Your task to perform on an android device: What's the weather going to be this weekend? Image 0: 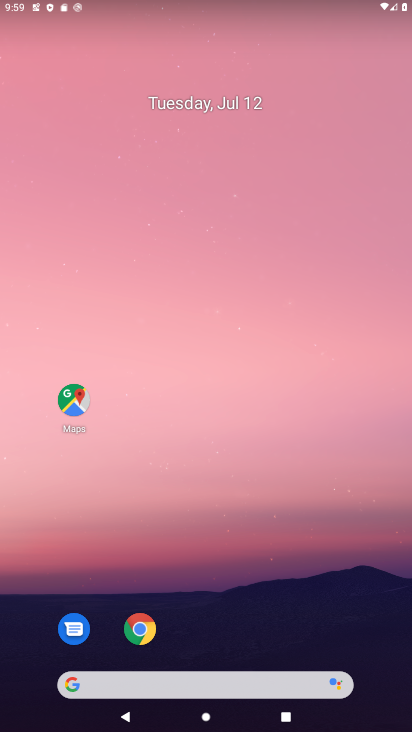
Step 0: drag from (279, 630) to (297, 18)
Your task to perform on an android device: What's the weather going to be this weekend? Image 1: 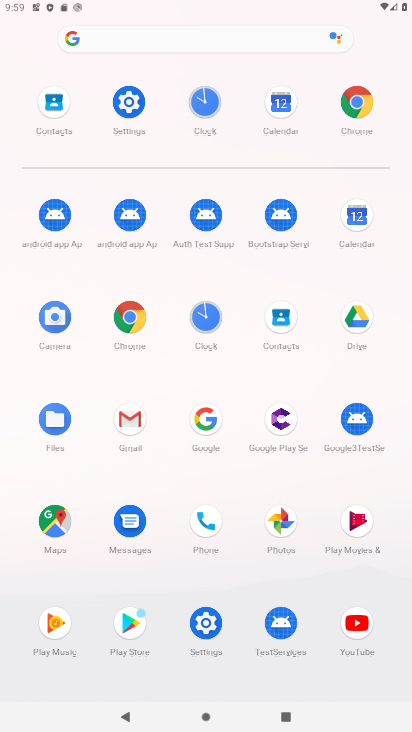
Step 1: click (139, 307)
Your task to perform on an android device: What's the weather going to be this weekend? Image 2: 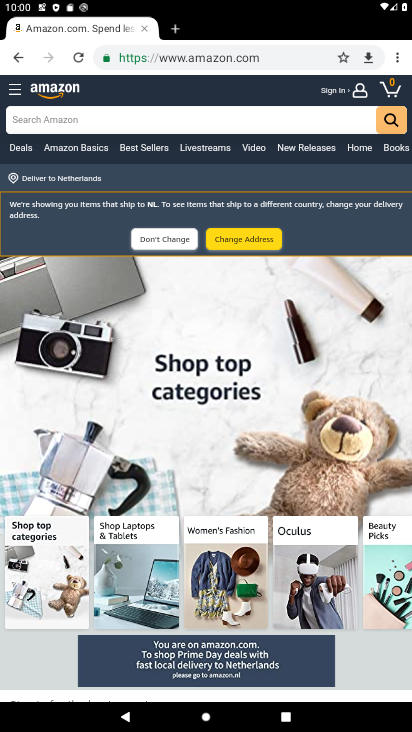
Step 2: click (305, 52)
Your task to perform on an android device: What's the weather going to be this weekend? Image 3: 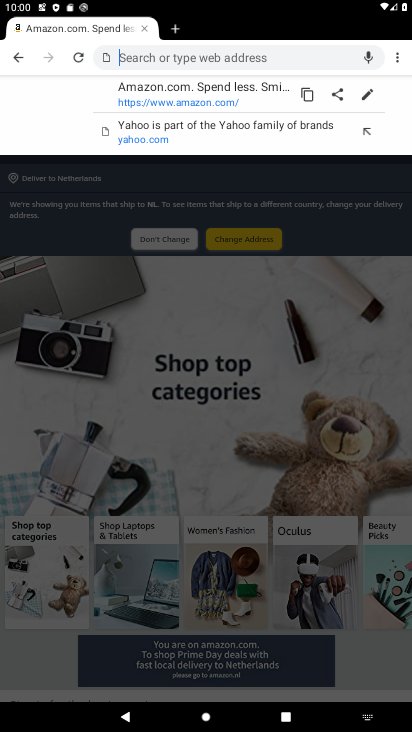
Step 3: type "weather going to be this weekend"
Your task to perform on an android device: What's the weather going to be this weekend? Image 4: 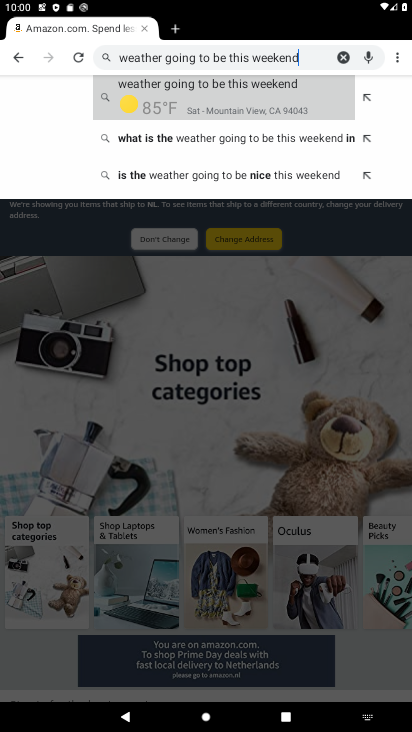
Step 4: click (326, 92)
Your task to perform on an android device: What's the weather going to be this weekend? Image 5: 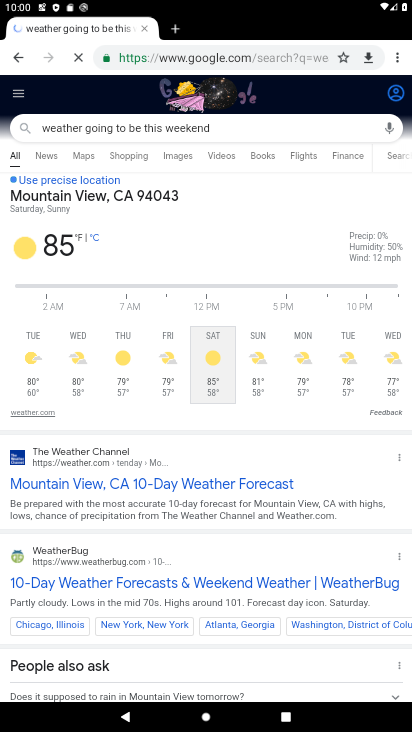
Step 5: task complete